Your task to perform on an android device: Open Amazon Image 0: 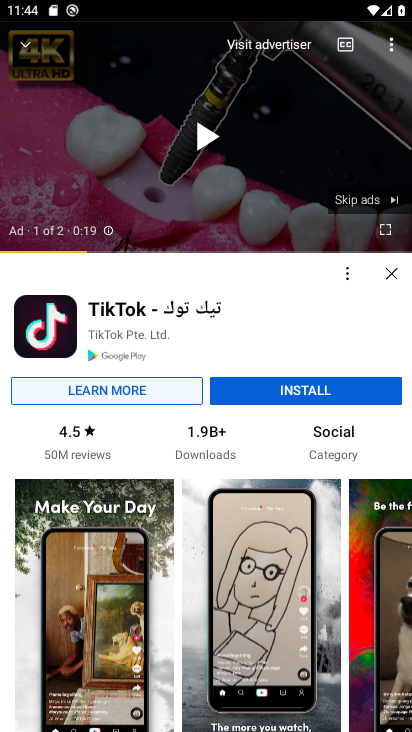
Step 0: press home button
Your task to perform on an android device: Open Amazon Image 1: 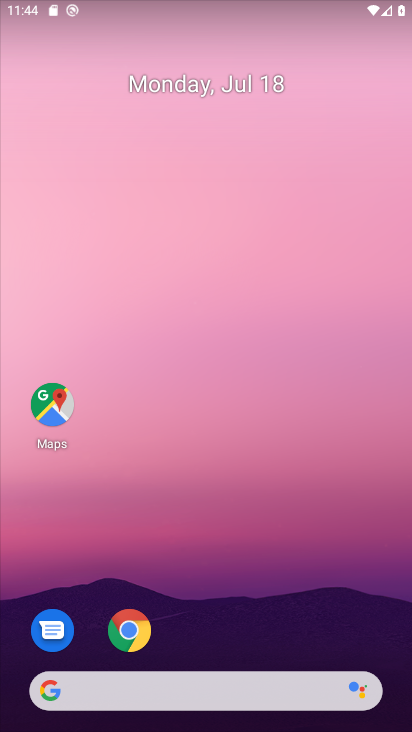
Step 1: click (130, 632)
Your task to perform on an android device: Open Amazon Image 2: 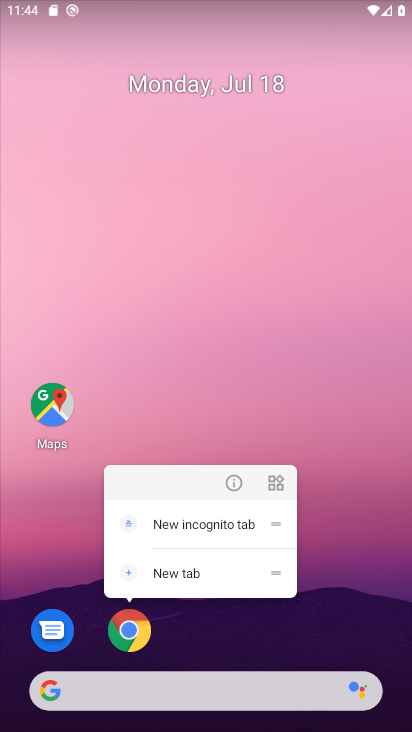
Step 2: click (136, 621)
Your task to perform on an android device: Open Amazon Image 3: 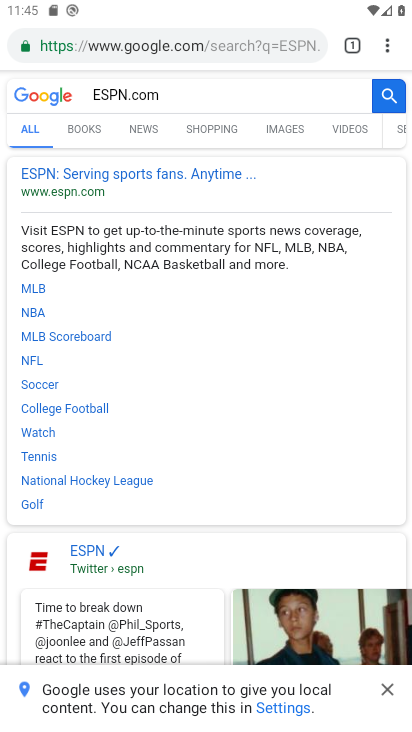
Step 3: click (163, 44)
Your task to perform on an android device: Open Amazon Image 4: 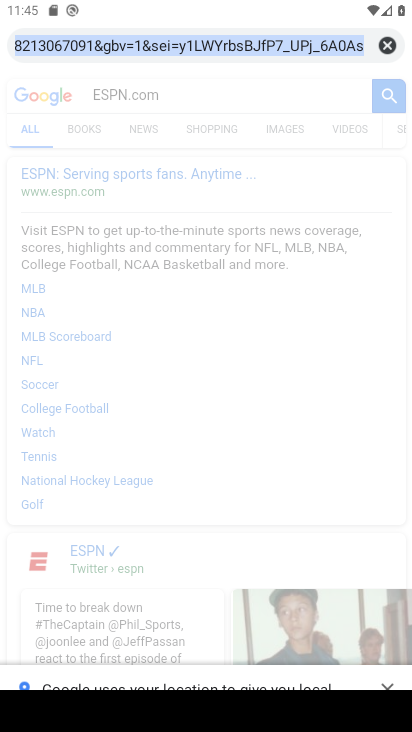
Step 4: type "Amazon.com"
Your task to perform on an android device: Open Amazon Image 5: 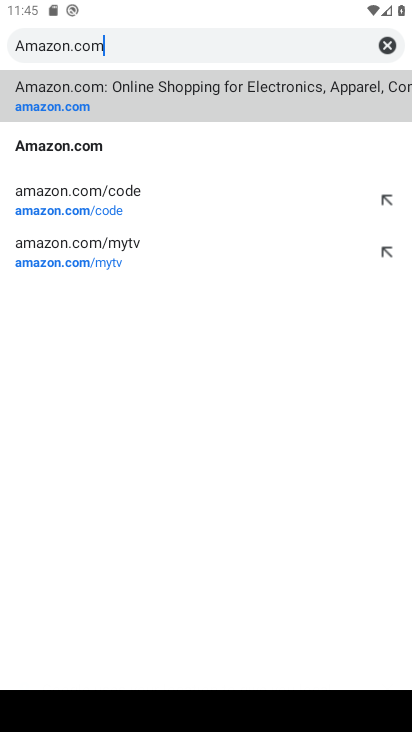
Step 5: click (86, 106)
Your task to perform on an android device: Open Amazon Image 6: 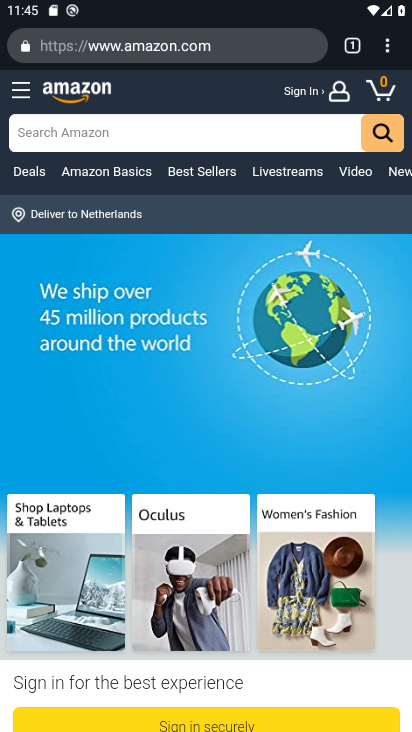
Step 6: task complete